Your task to perform on an android device: Go to Google Image 0: 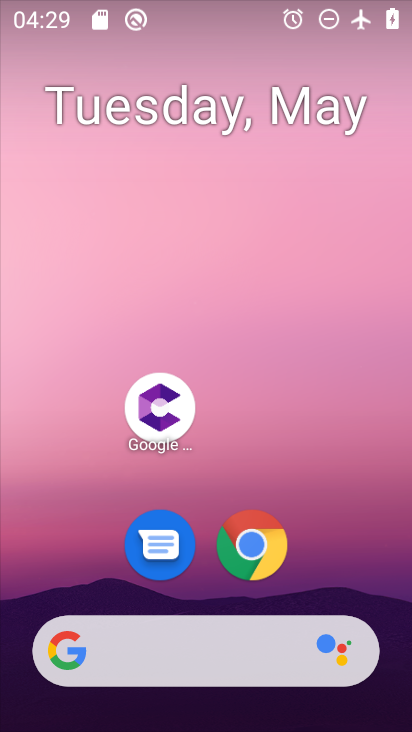
Step 0: drag from (370, 566) to (367, 298)
Your task to perform on an android device: Go to Google Image 1: 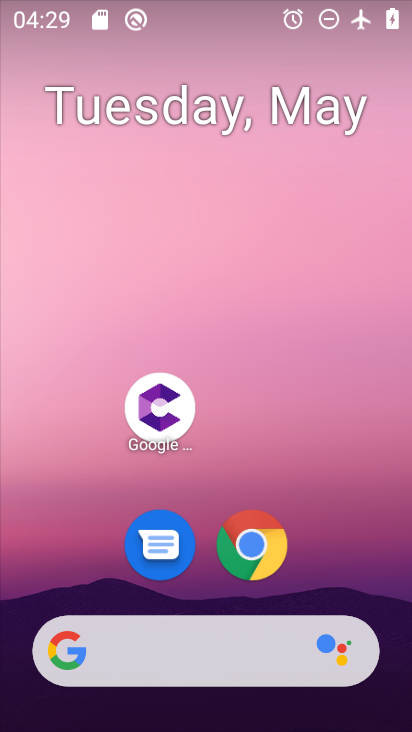
Step 1: drag from (376, 570) to (371, 291)
Your task to perform on an android device: Go to Google Image 2: 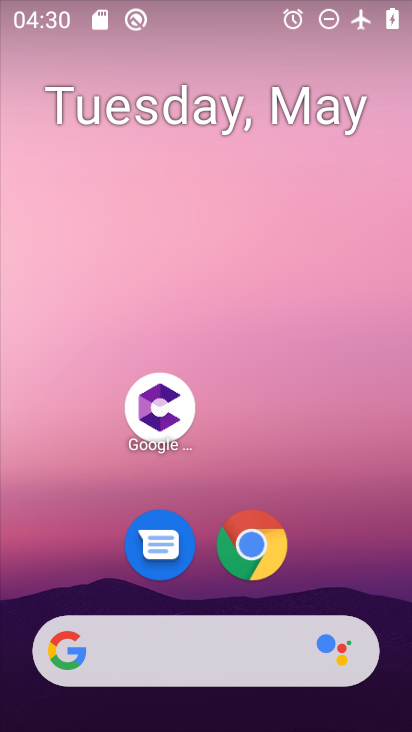
Step 2: drag from (341, 555) to (335, 283)
Your task to perform on an android device: Go to Google Image 3: 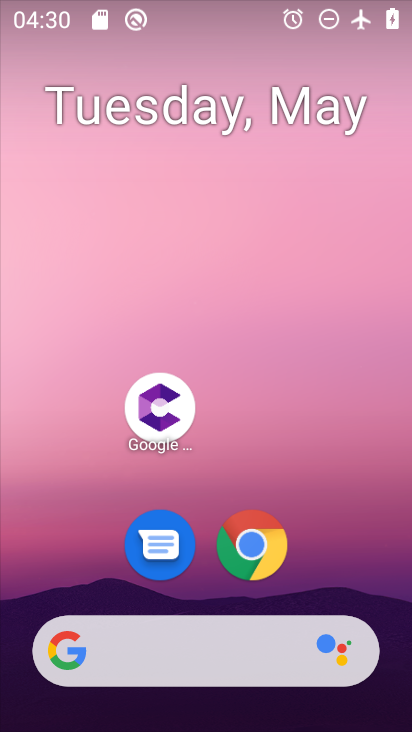
Step 3: drag from (369, 552) to (379, 219)
Your task to perform on an android device: Go to Google Image 4: 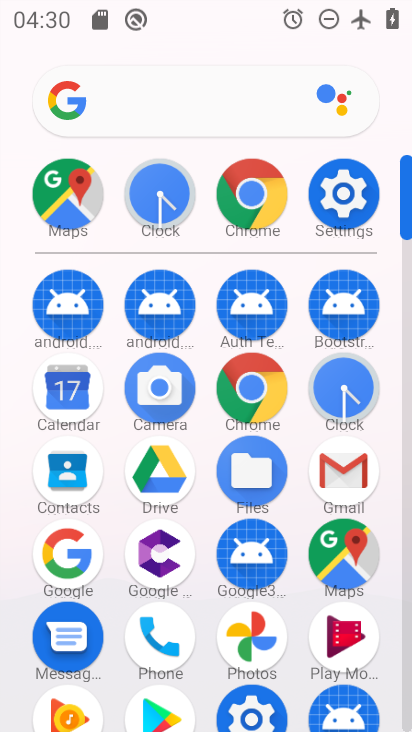
Step 4: click (89, 565)
Your task to perform on an android device: Go to Google Image 5: 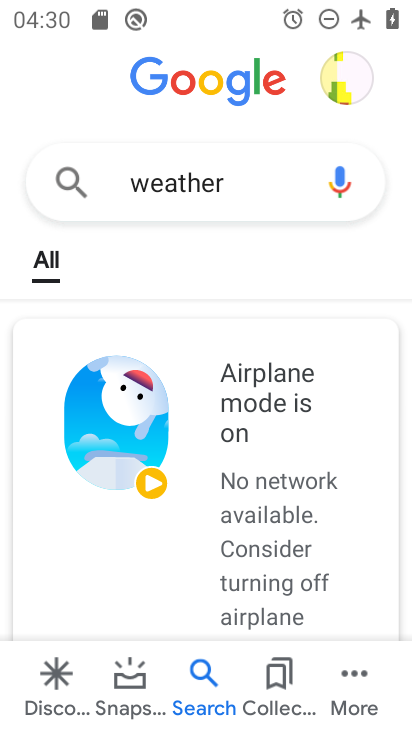
Step 5: task complete